Your task to perform on an android device: Show me productivity apps on the Play Store Image 0: 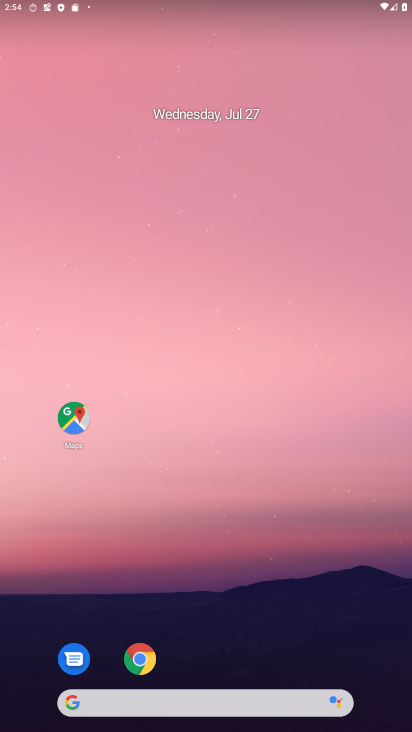
Step 0: drag from (204, 693) to (204, 77)
Your task to perform on an android device: Show me productivity apps on the Play Store Image 1: 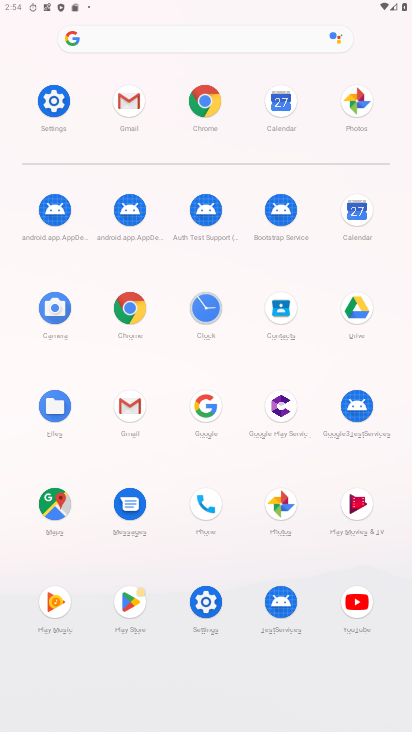
Step 1: click (121, 601)
Your task to perform on an android device: Show me productivity apps on the Play Store Image 2: 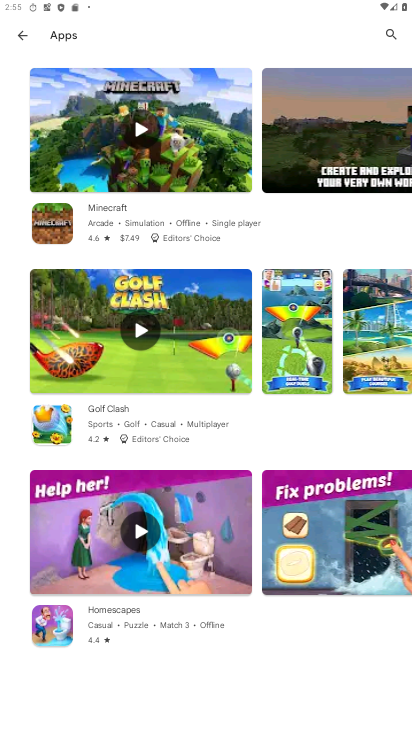
Step 2: click (28, 37)
Your task to perform on an android device: Show me productivity apps on the Play Store Image 3: 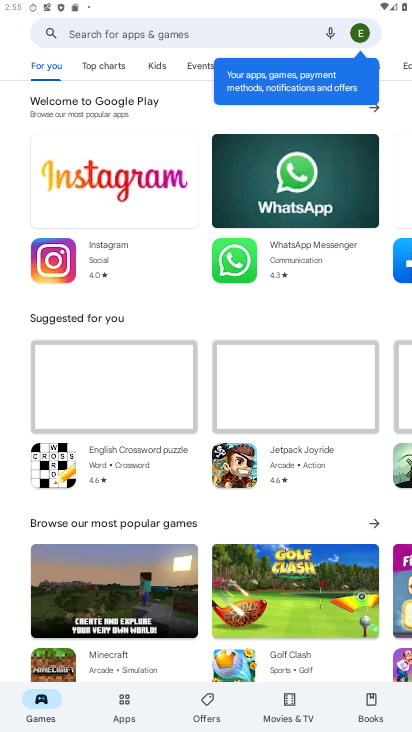
Step 3: click (126, 703)
Your task to perform on an android device: Show me productivity apps on the Play Store Image 4: 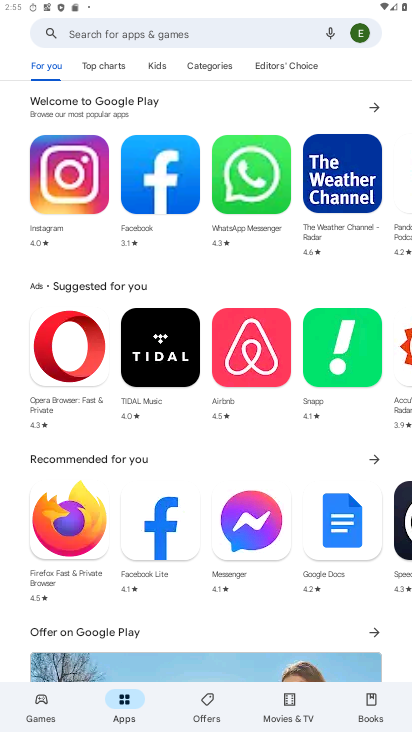
Step 4: click (226, 64)
Your task to perform on an android device: Show me productivity apps on the Play Store Image 5: 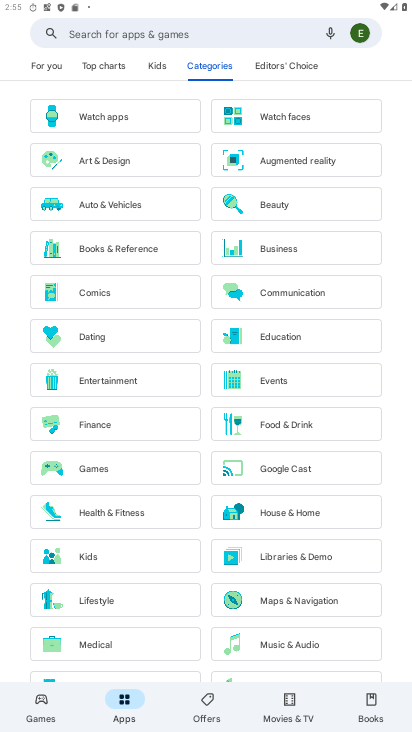
Step 5: drag from (290, 632) to (287, 432)
Your task to perform on an android device: Show me productivity apps on the Play Store Image 6: 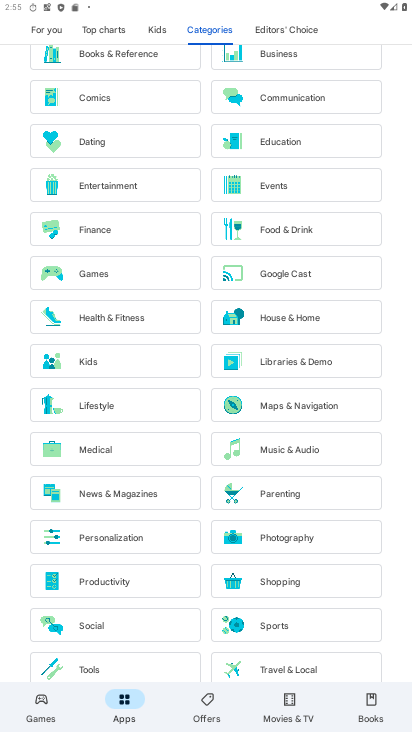
Step 6: click (103, 585)
Your task to perform on an android device: Show me productivity apps on the Play Store Image 7: 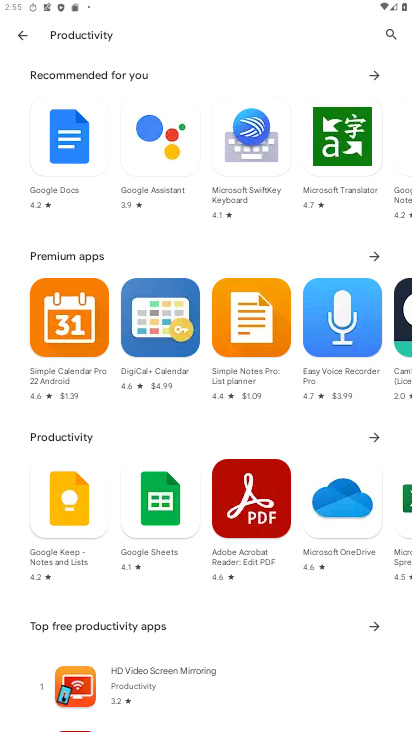
Step 7: task complete